Your task to perform on an android device: toggle location history Image 0: 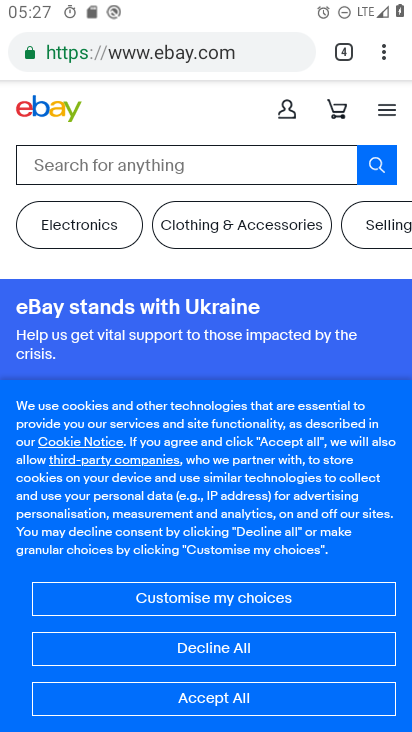
Step 0: press home button
Your task to perform on an android device: toggle location history Image 1: 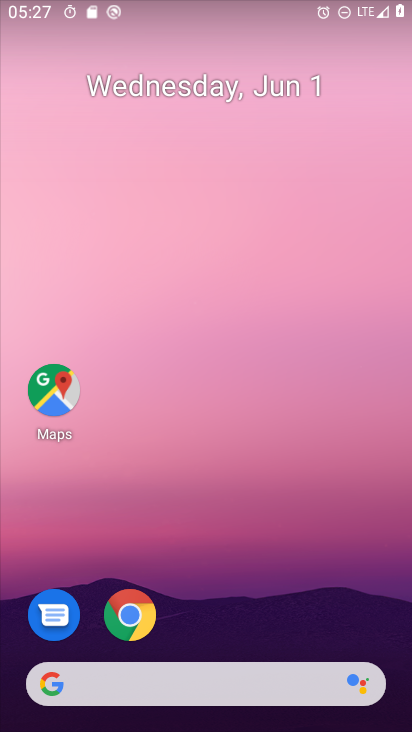
Step 1: drag from (207, 692) to (303, 29)
Your task to perform on an android device: toggle location history Image 2: 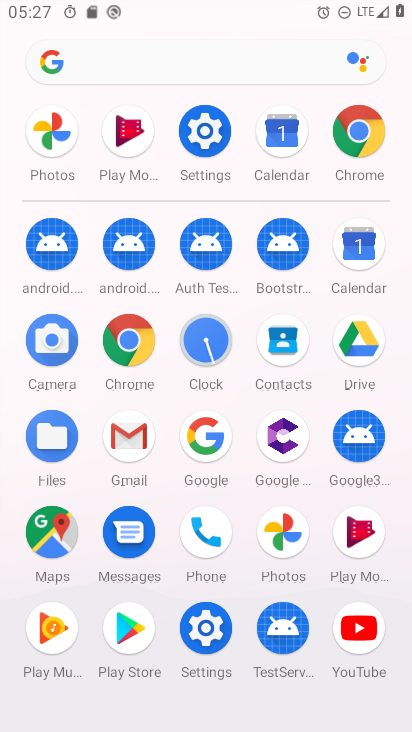
Step 2: click (199, 136)
Your task to perform on an android device: toggle location history Image 3: 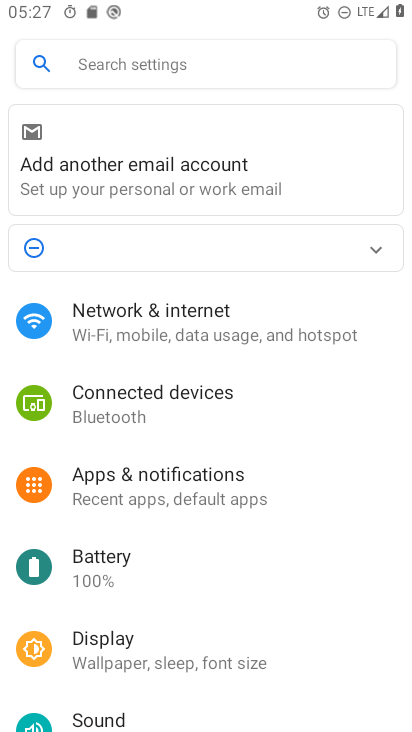
Step 3: drag from (235, 646) to (251, 155)
Your task to perform on an android device: toggle location history Image 4: 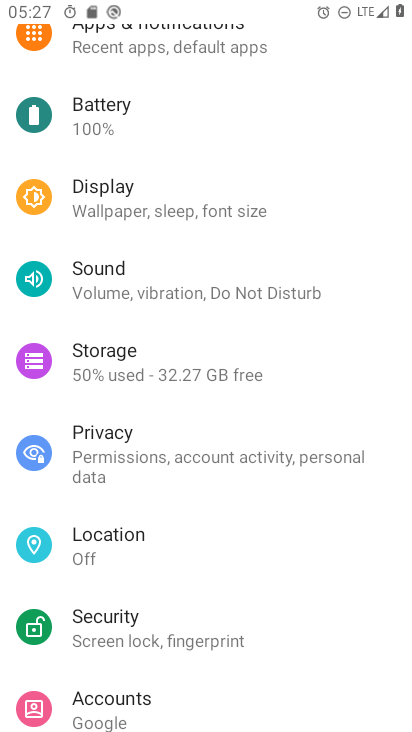
Step 4: click (155, 545)
Your task to perform on an android device: toggle location history Image 5: 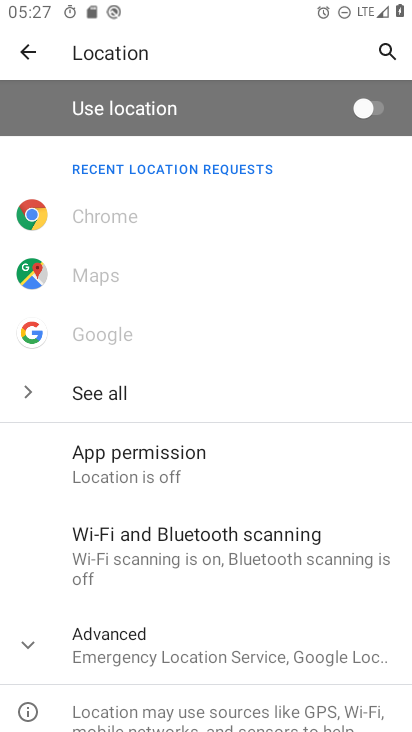
Step 5: drag from (241, 631) to (256, 285)
Your task to perform on an android device: toggle location history Image 6: 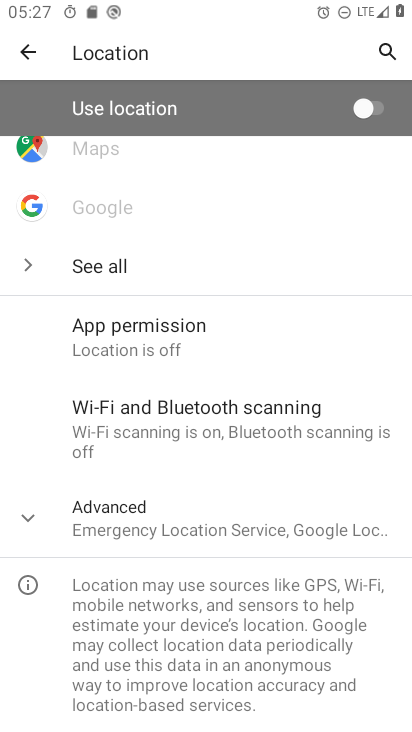
Step 6: click (221, 517)
Your task to perform on an android device: toggle location history Image 7: 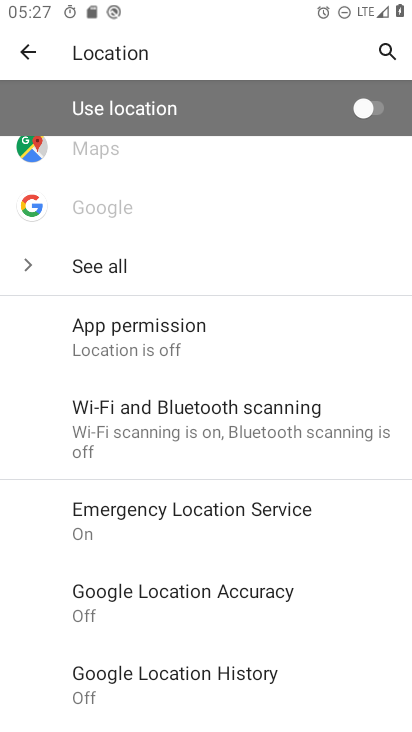
Step 7: click (188, 670)
Your task to perform on an android device: toggle location history Image 8: 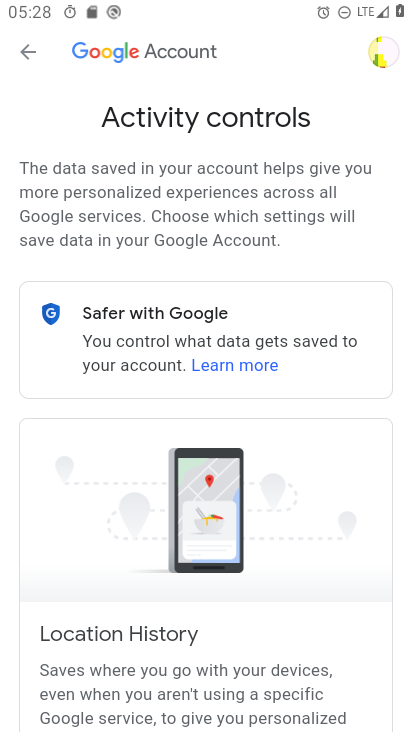
Step 8: drag from (184, 650) to (287, 74)
Your task to perform on an android device: toggle location history Image 9: 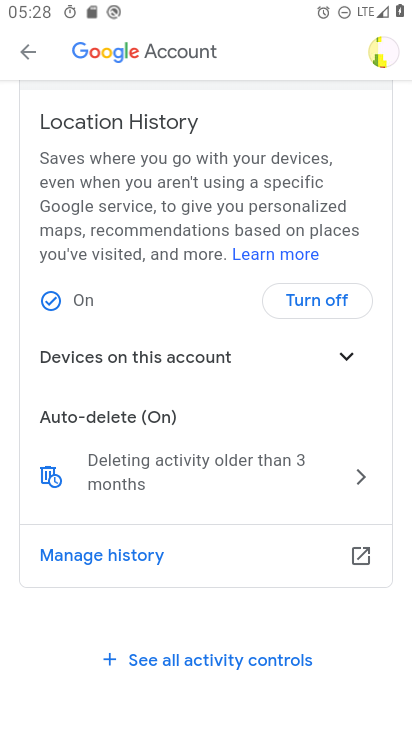
Step 9: click (335, 301)
Your task to perform on an android device: toggle location history Image 10: 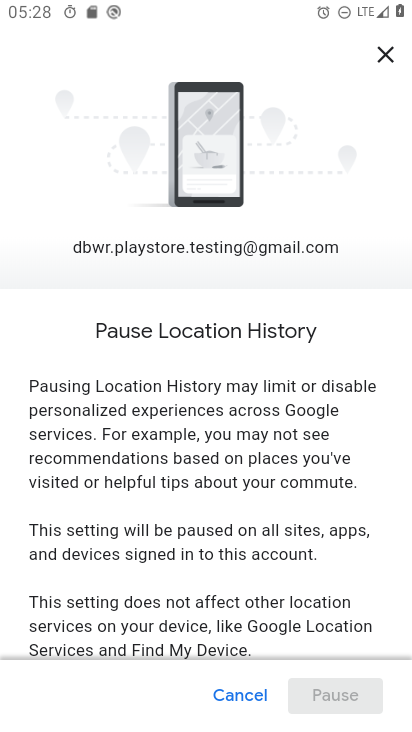
Step 10: drag from (316, 627) to (279, 9)
Your task to perform on an android device: toggle location history Image 11: 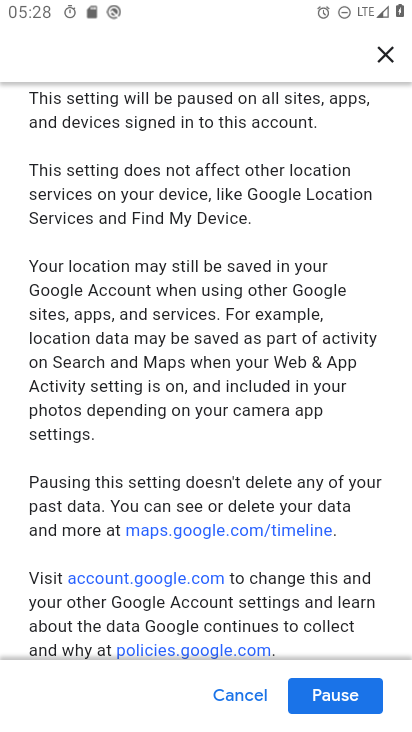
Step 11: click (330, 700)
Your task to perform on an android device: toggle location history Image 12: 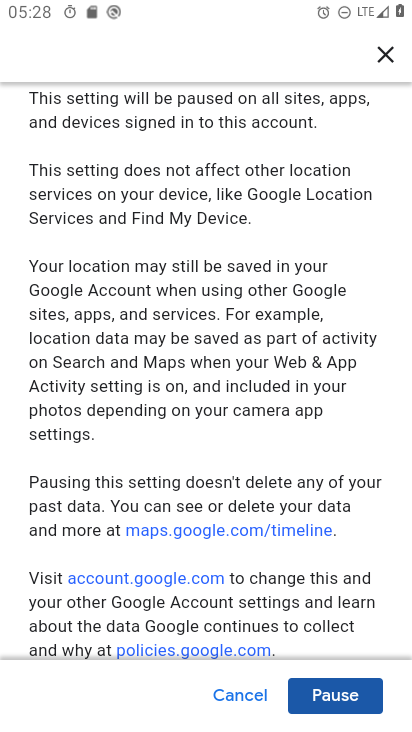
Step 12: click (337, 688)
Your task to perform on an android device: toggle location history Image 13: 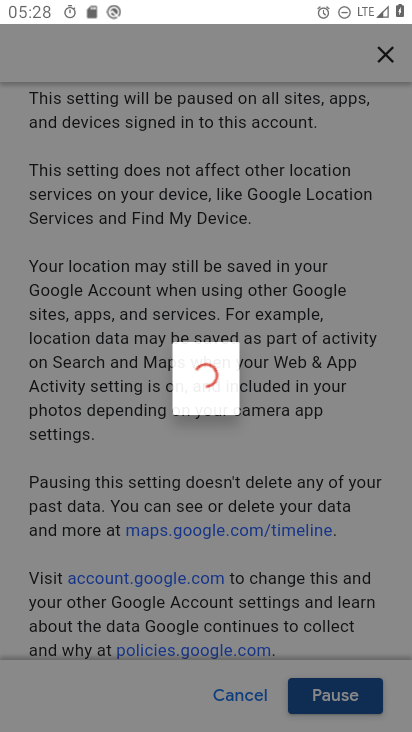
Step 13: click (327, 694)
Your task to perform on an android device: toggle location history Image 14: 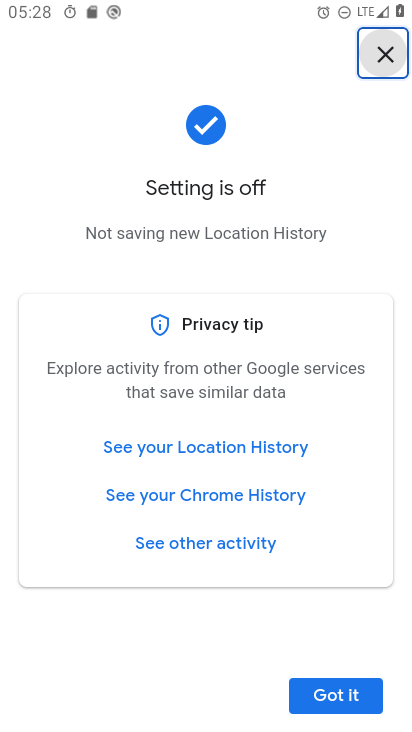
Step 14: task complete